Your task to perform on an android device: Open the stopwatch Image 0: 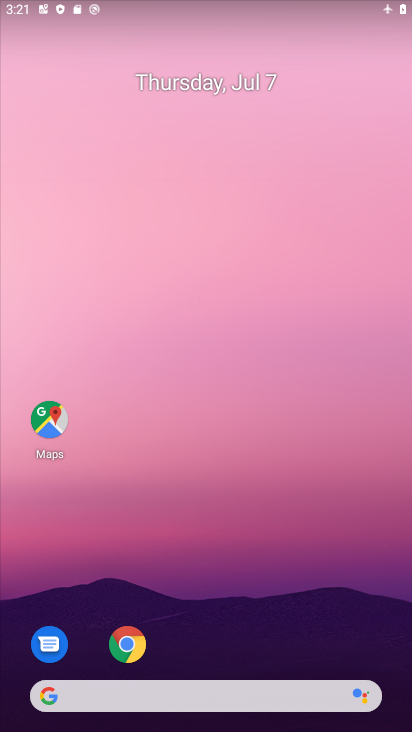
Step 0: drag from (258, 651) to (406, 336)
Your task to perform on an android device: Open the stopwatch Image 1: 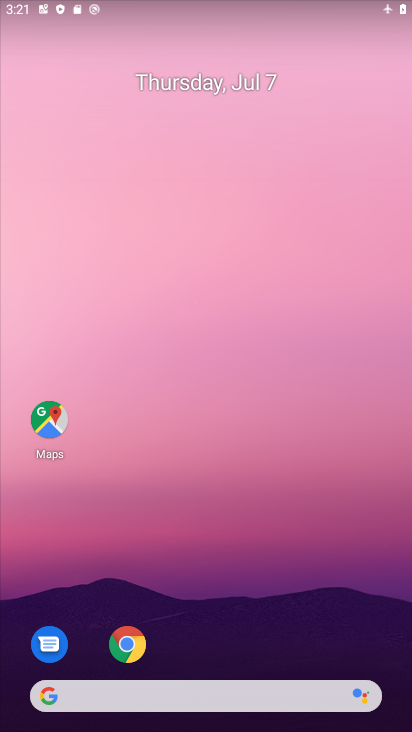
Step 1: drag from (228, 662) to (251, 200)
Your task to perform on an android device: Open the stopwatch Image 2: 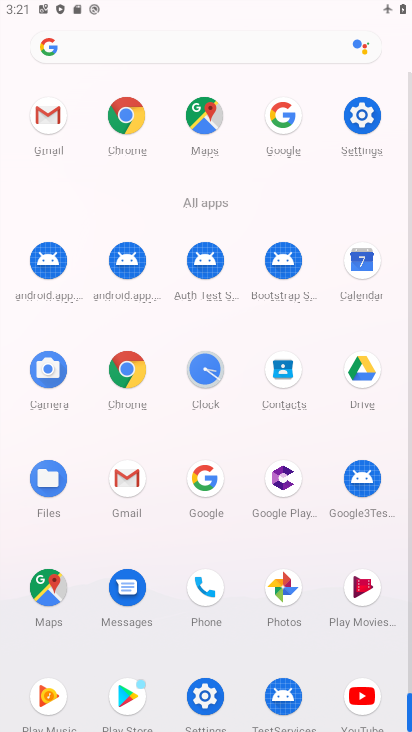
Step 2: click (205, 371)
Your task to perform on an android device: Open the stopwatch Image 3: 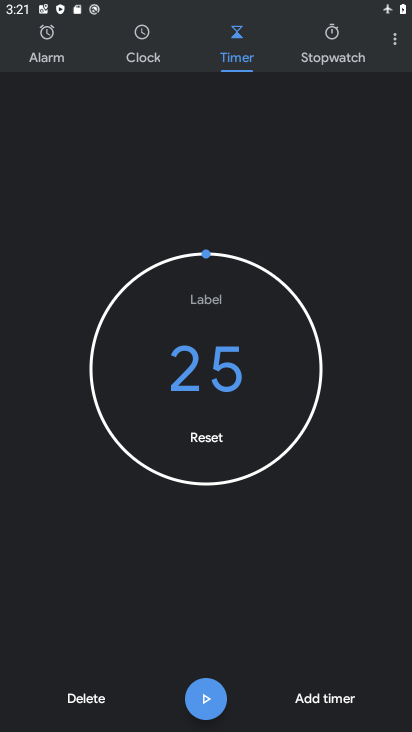
Step 3: click (335, 52)
Your task to perform on an android device: Open the stopwatch Image 4: 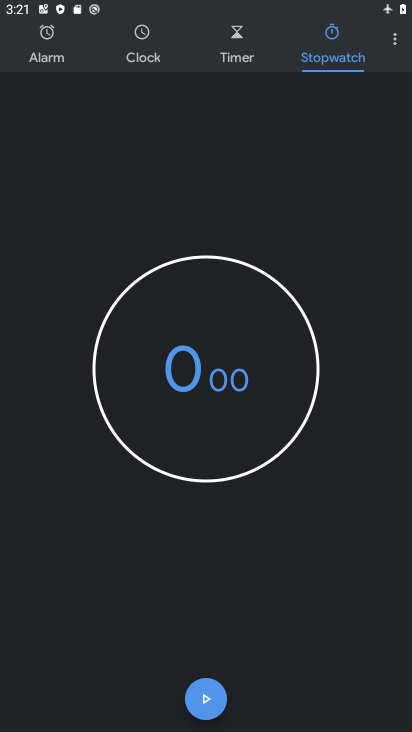
Step 4: click (213, 709)
Your task to perform on an android device: Open the stopwatch Image 5: 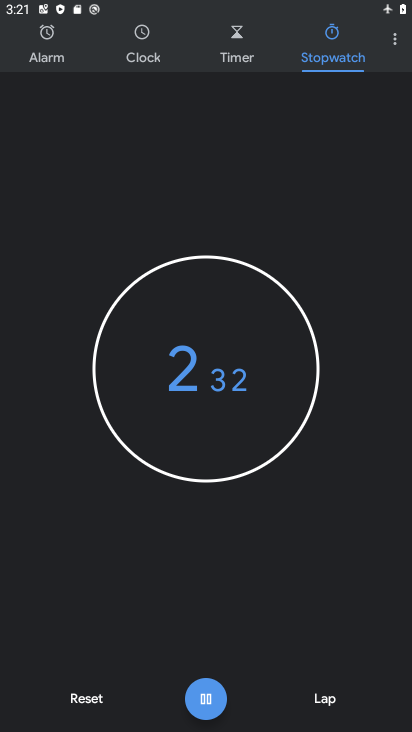
Step 5: task complete